Your task to perform on an android device: turn pop-ups off in chrome Image 0: 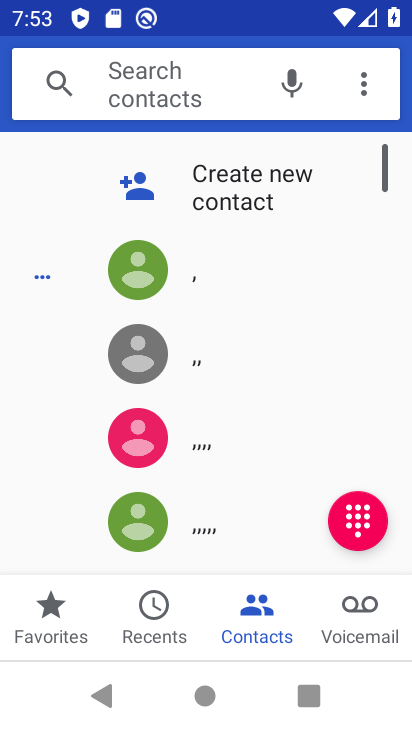
Step 0: press home button
Your task to perform on an android device: turn pop-ups off in chrome Image 1: 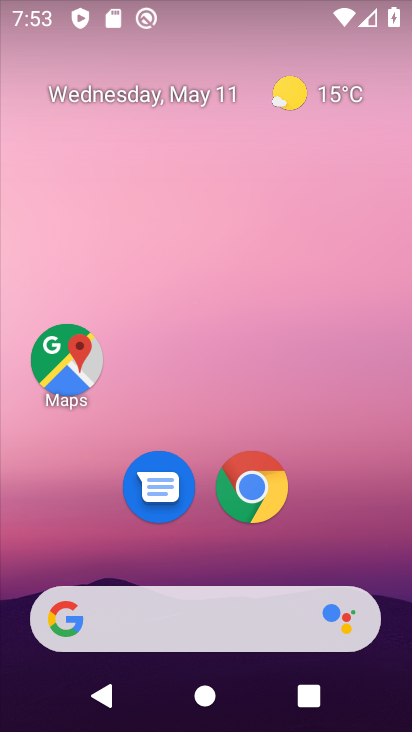
Step 1: drag from (242, 655) to (200, 169)
Your task to perform on an android device: turn pop-ups off in chrome Image 2: 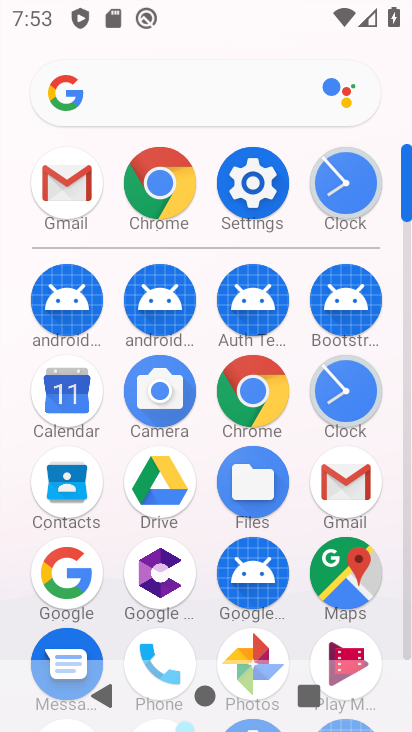
Step 2: click (178, 200)
Your task to perform on an android device: turn pop-ups off in chrome Image 3: 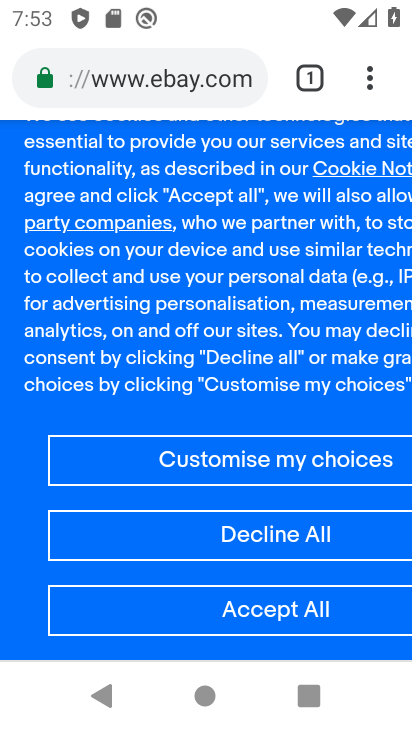
Step 3: click (377, 66)
Your task to perform on an android device: turn pop-ups off in chrome Image 4: 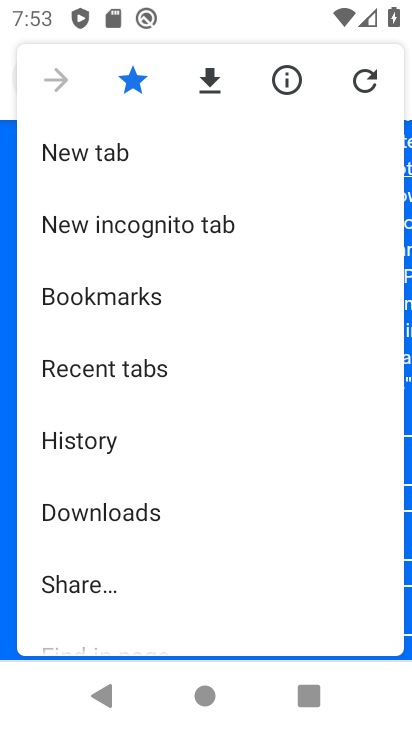
Step 4: drag from (154, 552) to (101, 218)
Your task to perform on an android device: turn pop-ups off in chrome Image 5: 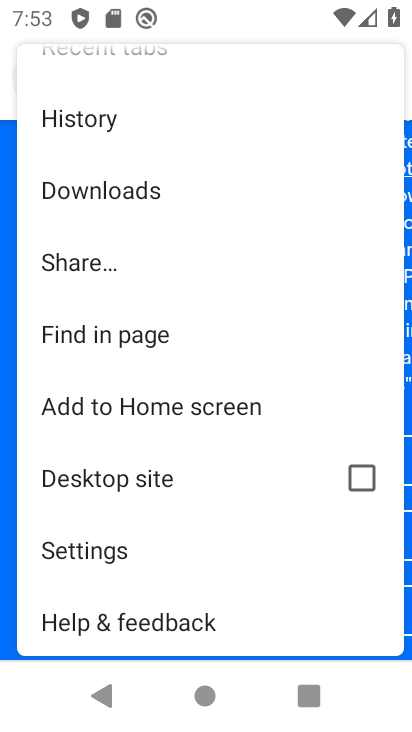
Step 5: click (166, 540)
Your task to perform on an android device: turn pop-ups off in chrome Image 6: 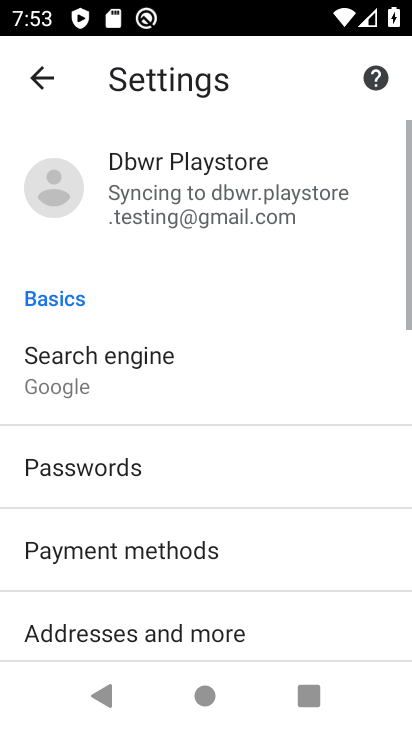
Step 6: drag from (172, 588) to (149, 257)
Your task to perform on an android device: turn pop-ups off in chrome Image 7: 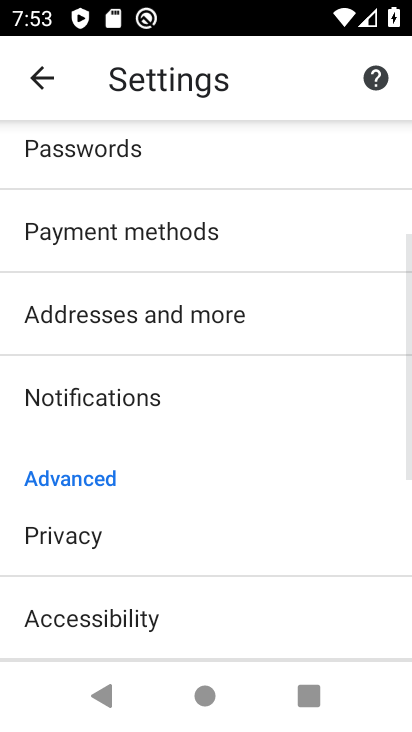
Step 7: drag from (156, 621) to (144, 361)
Your task to perform on an android device: turn pop-ups off in chrome Image 8: 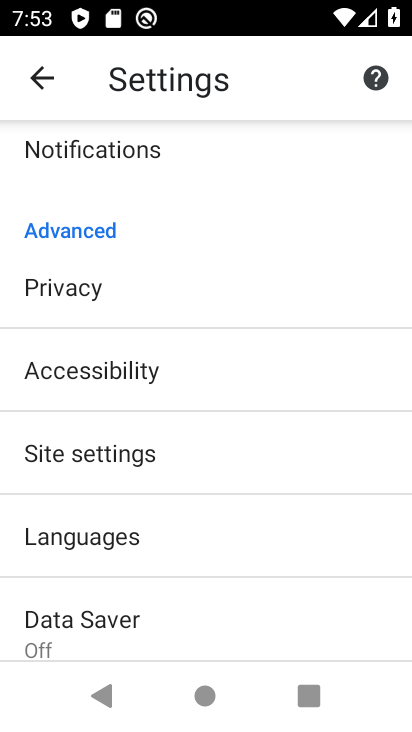
Step 8: click (126, 452)
Your task to perform on an android device: turn pop-ups off in chrome Image 9: 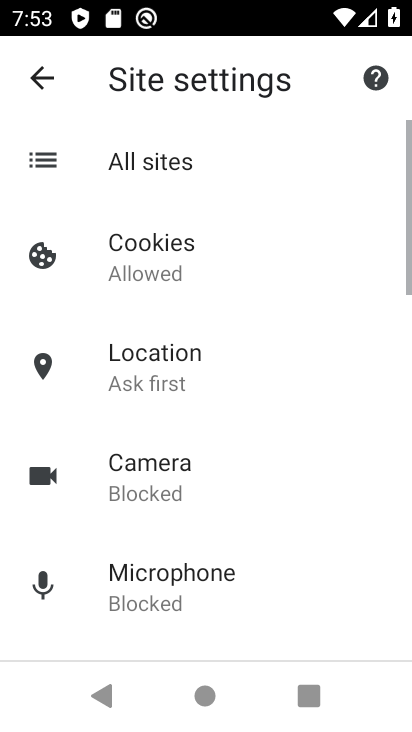
Step 9: drag from (259, 562) to (233, 231)
Your task to perform on an android device: turn pop-ups off in chrome Image 10: 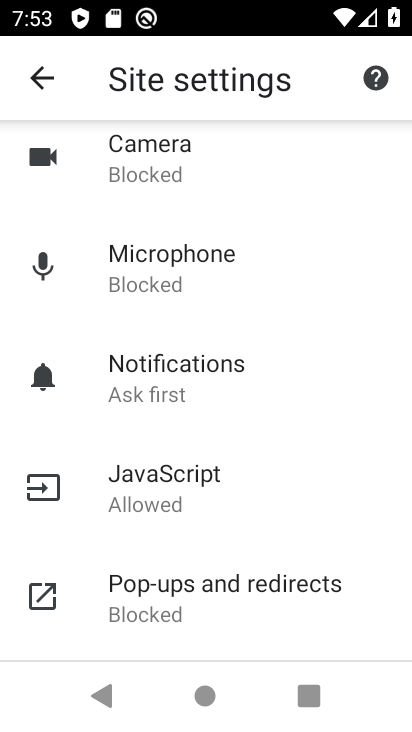
Step 10: click (215, 583)
Your task to perform on an android device: turn pop-ups off in chrome Image 11: 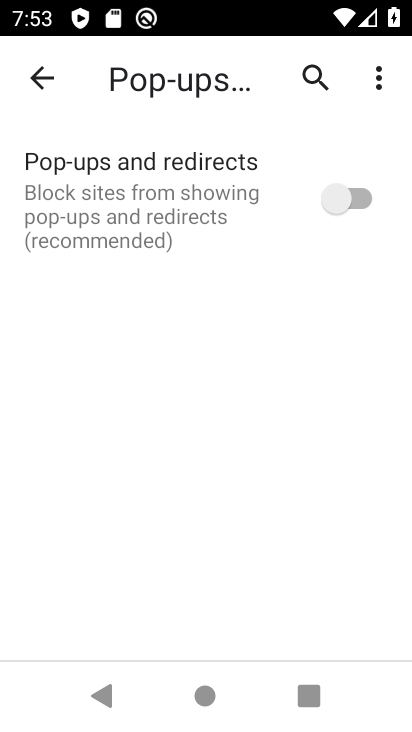
Step 11: click (356, 176)
Your task to perform on an android device: turn pop-ups off in chrome Image 12: 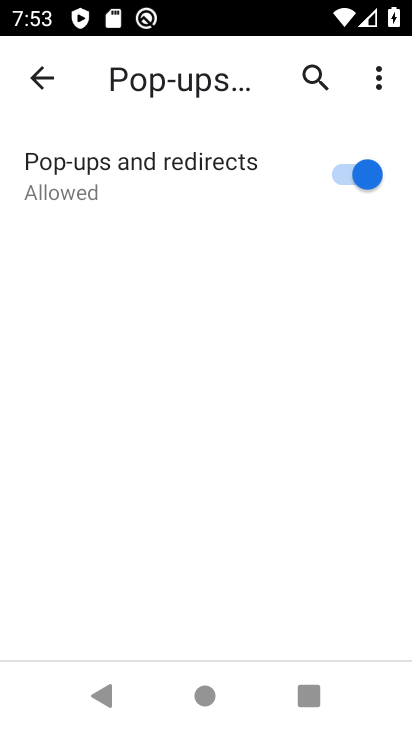
Step 12: click (362, 191)
Your task to perform on an android device: turn pop-ups off in chrome Image 13: 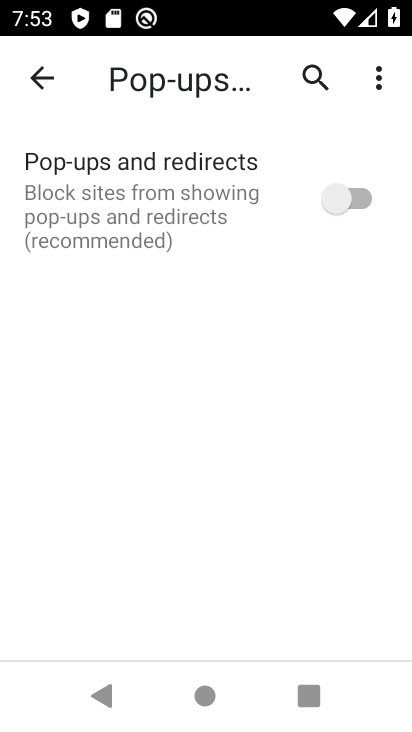
Step 13: task complete